Your task to perform on an android device: delete a single message in the gmail app Image 0: 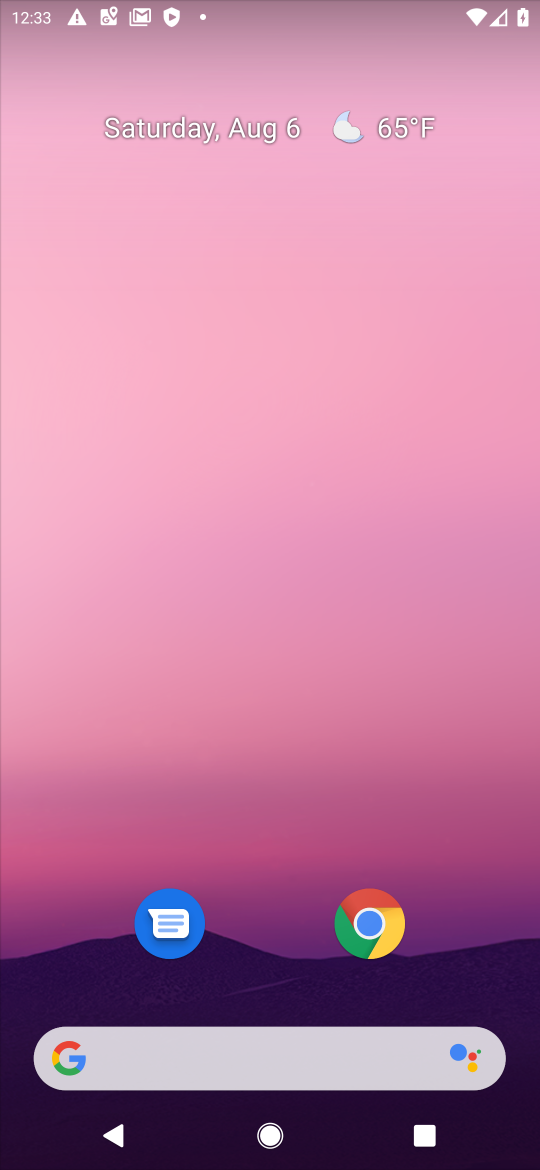
Step 0: drag from (326, 1072) to (384, 637)
Your task to perform on an android device: delete a single message in the gmail app Image 1: 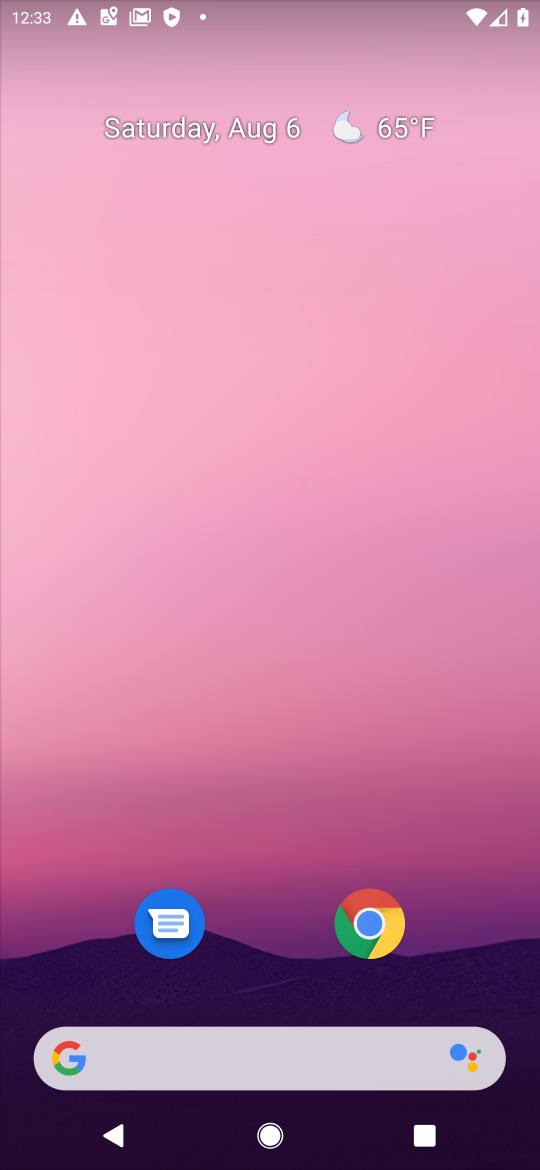
Step 1: drag from (251, 1066) to (313, 76)
Your task to perform on an android device: delete a single message in the gmail app Image 2: 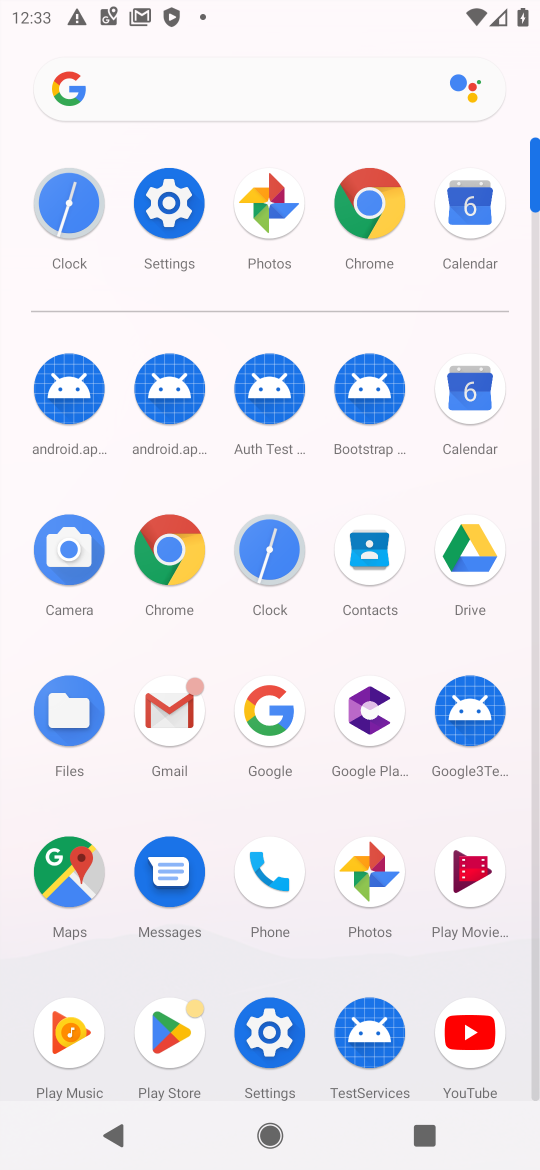
Step 2: click (176, 718)
Your task to perform on an android device: delete a single message in the gmail app Image 3: 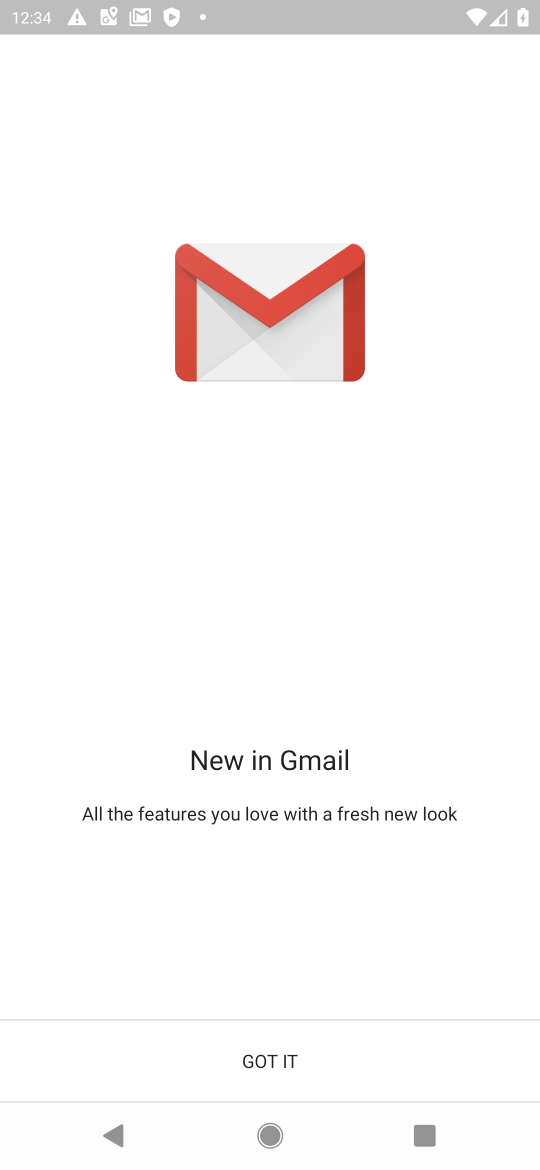
Step 3: click (389, 1076)
Your task to perform on an android device: delete a single message in the gmail app Image 4: 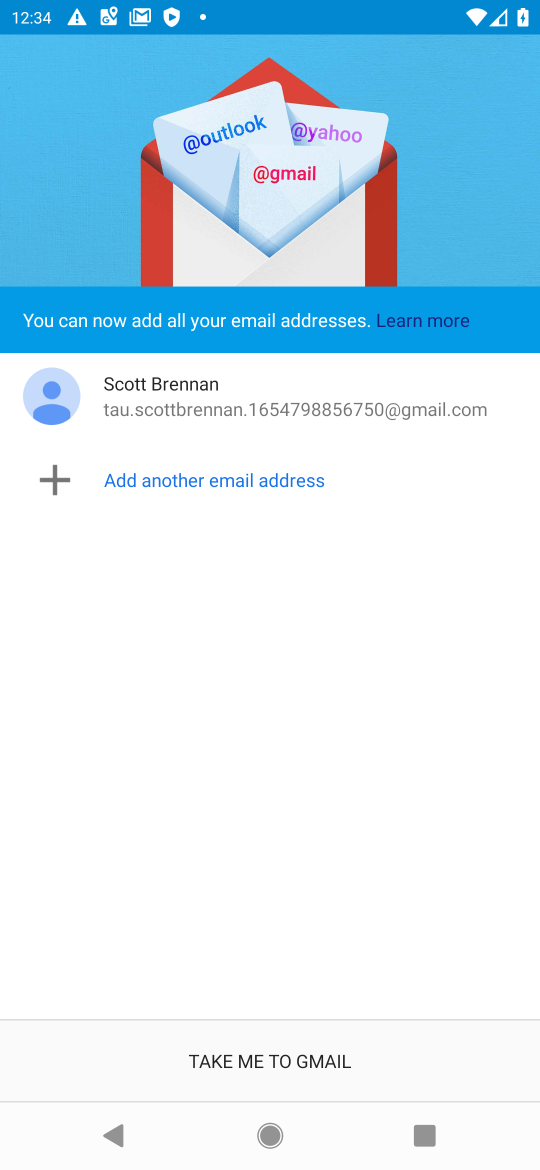
Step 4: click (389, 1076)
Your task to perform on an android device: delete a single message in the gmail app Image 5: 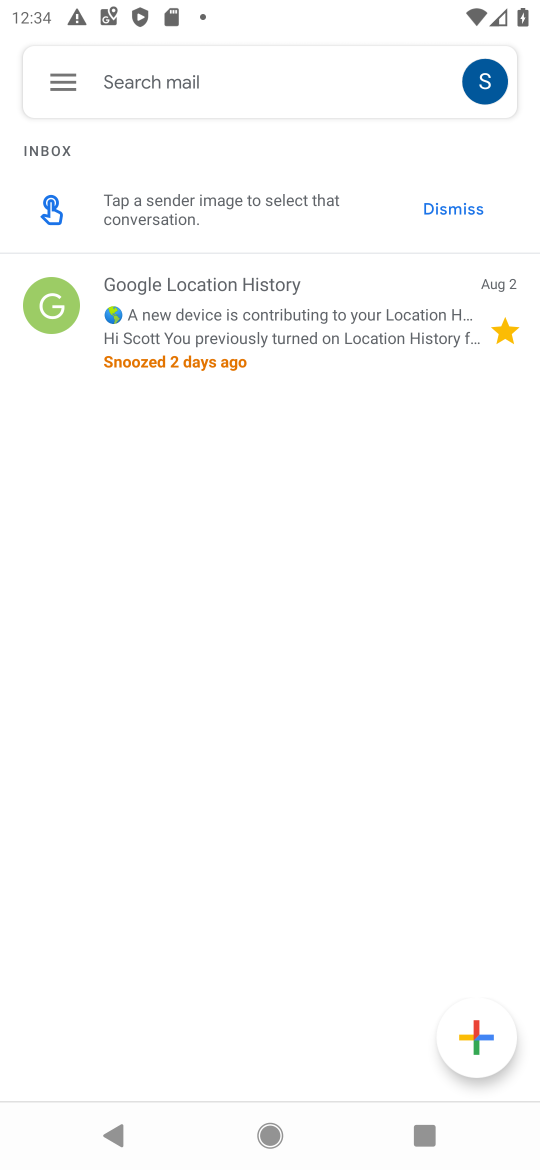
Step 5: click (322, 474)
Your task to perform on an android device: delete a single message in the gmail app Image 6: 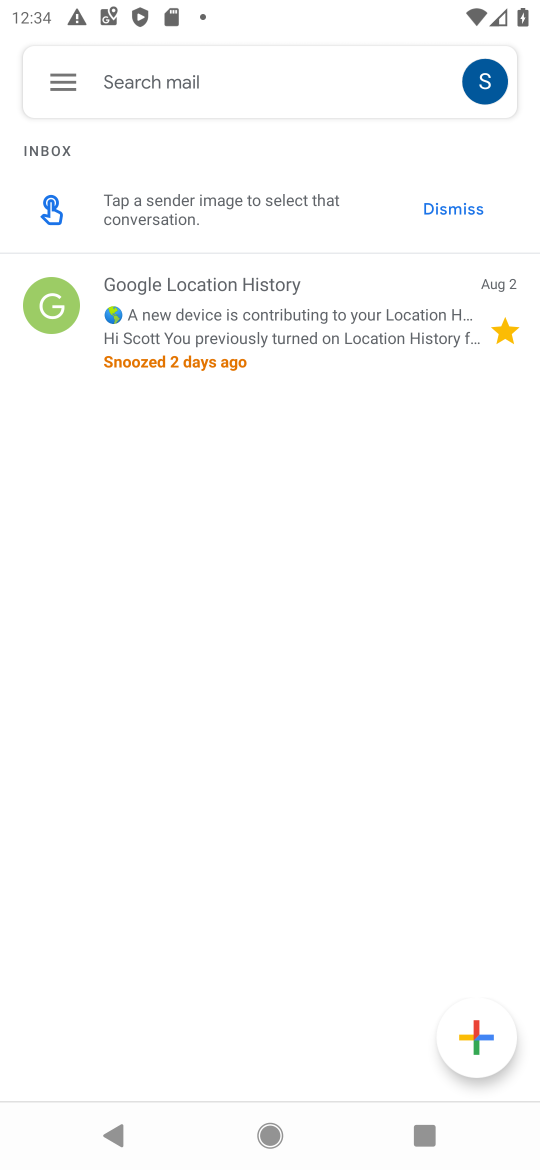
Step 6: click (301, 303)
Your task to perform on an android device: delete a single message in the gmail app Image 7: 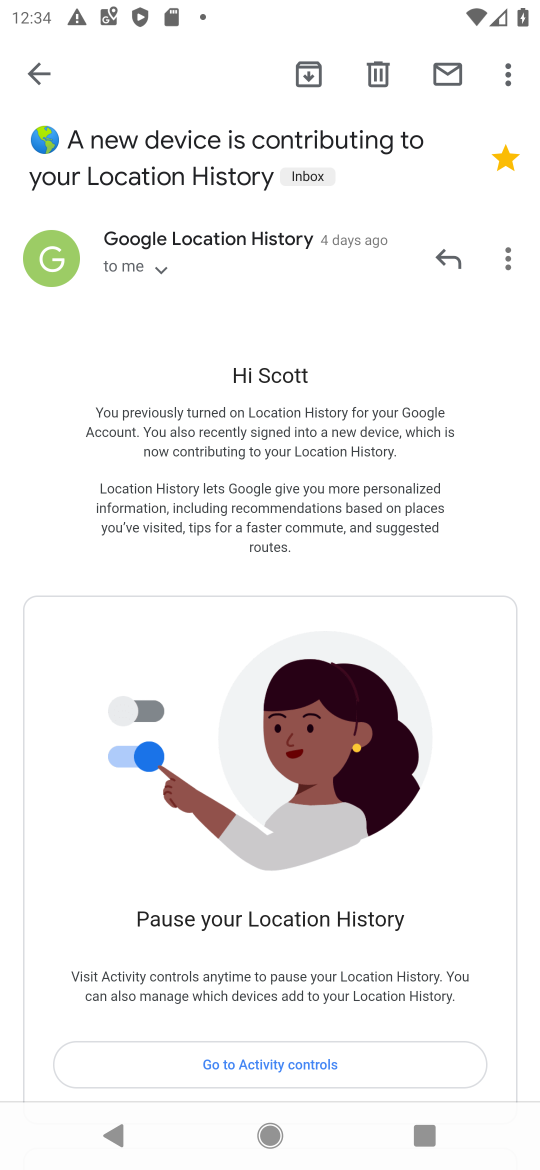
Step 7: click (370, 73)
Your task to perform on an android device: delete a single message in the gmail app Image 8: 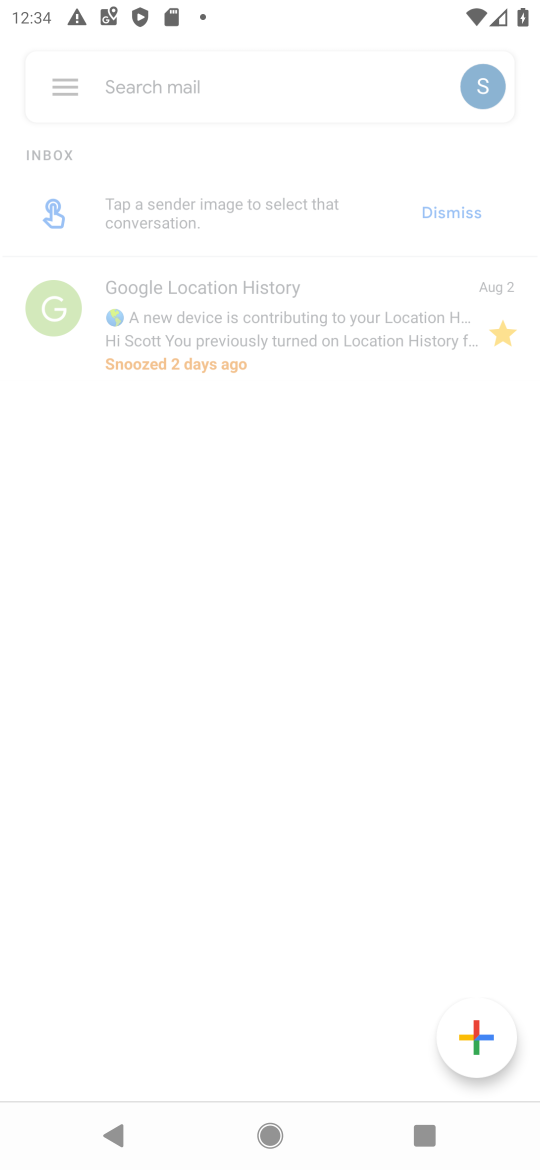
Step 8: task complete